Your task to perform on an android device: manage bookmarks in the chrome app Image 0: 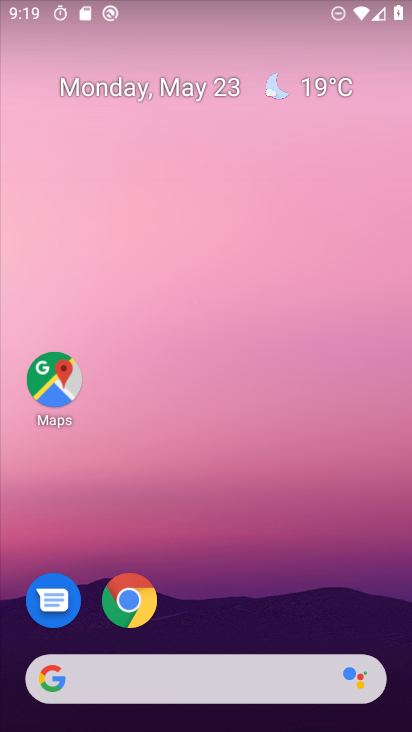
Step 0: click (129, 586)
Your task to perform on an android device: manage bookmarks in the chrome app Image 1: 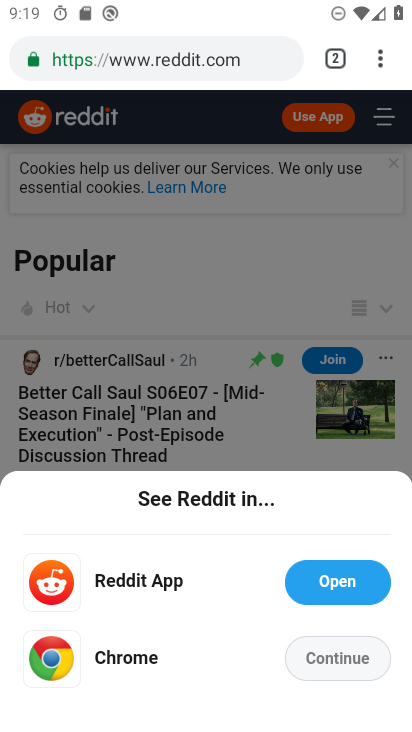
Step 1: click (383, 51)
Your task to perform on an android device: manage bookmarks in the chrome app Image 2: 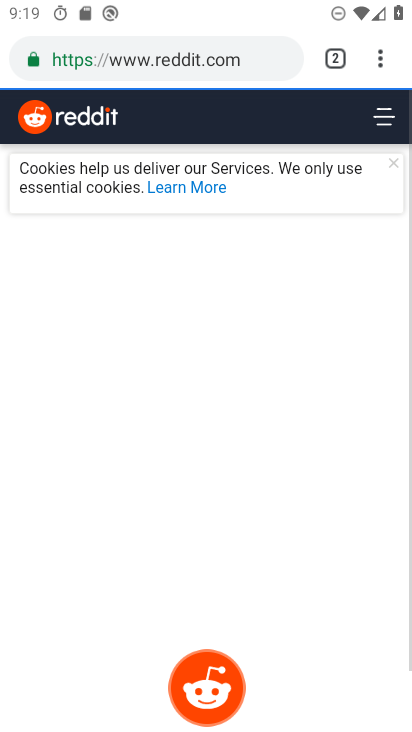
Step 2: click (369, 60)
Your task to perform on an android device: manage bookmarks in the chrome app Image 3: 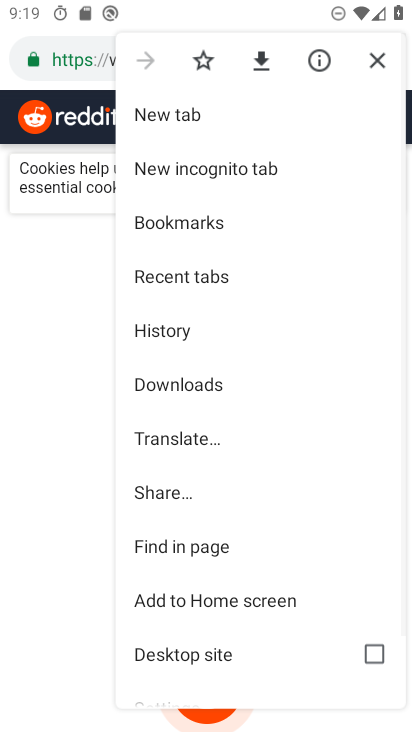
Step 3: click (203, 223)
Your task to perform on an android device: manage bookmarks in the chrome app Image 4: 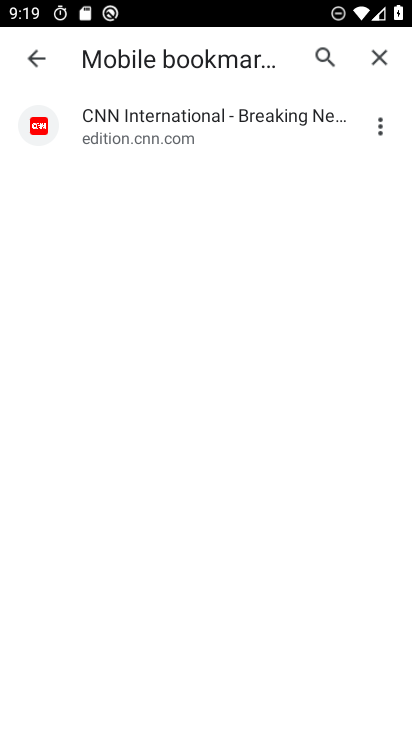
Step 4: task complete